Your task to perform on an android device: Open wifi settings Image 0: 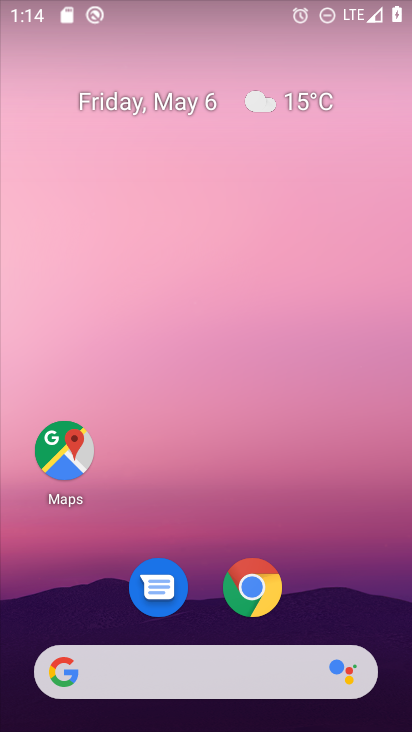
Step 0: drag from (354, 568) to (271, 50)
Your task to perform on an android device: Open wifi settings Image 1: 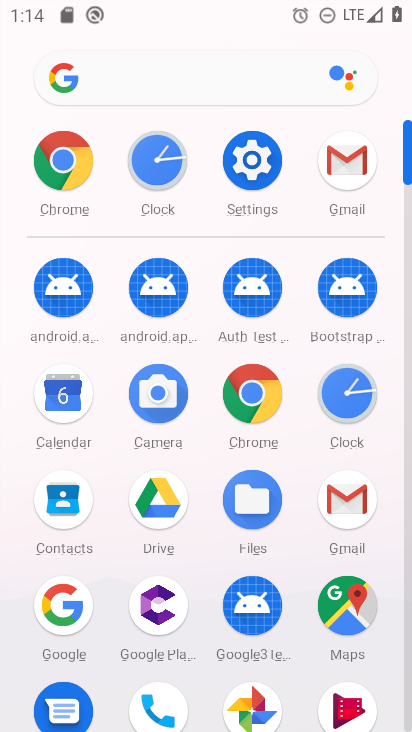
Step 1: click (252, 170)
Your task to perform on an android device: Open wifi settings Image 2: 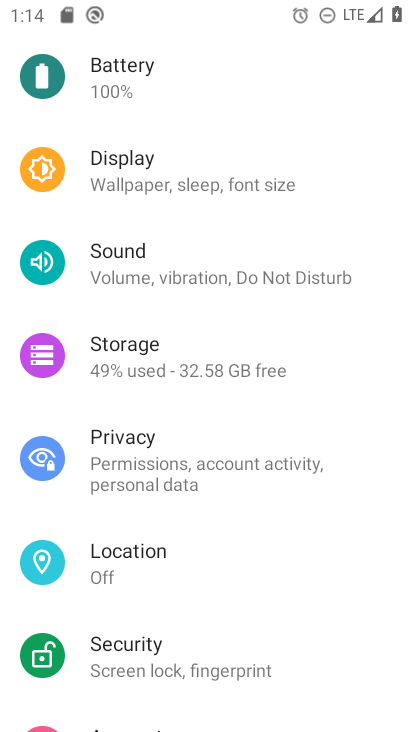
Step 2: drag from (222, 150) to (124, 709)
Your task to perform on an android device: Open wifi settings Image 3: 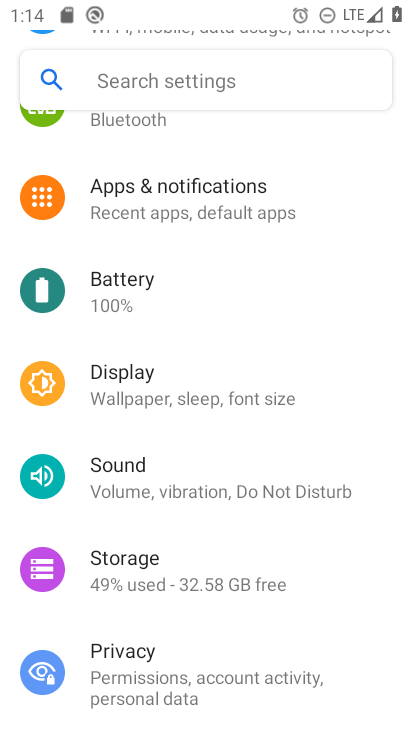
Step 3: drag from (233, 183) to (183, 631)
Your task to perform on an android device: Open wifi settings Image 4: 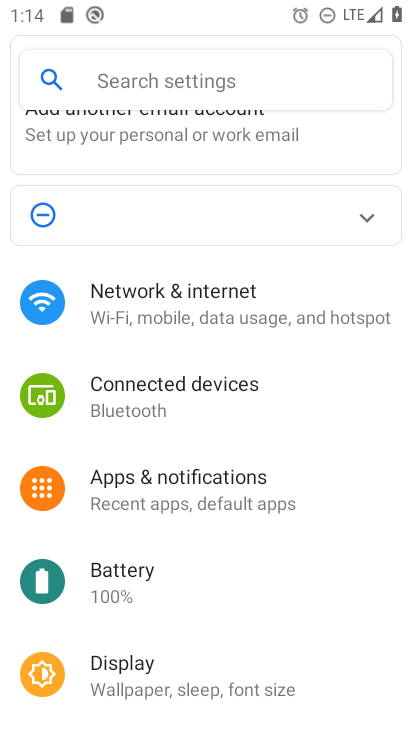
Step 4: click (196, 312)
Your task to perform on an android device: Open wifi settings Image 5: 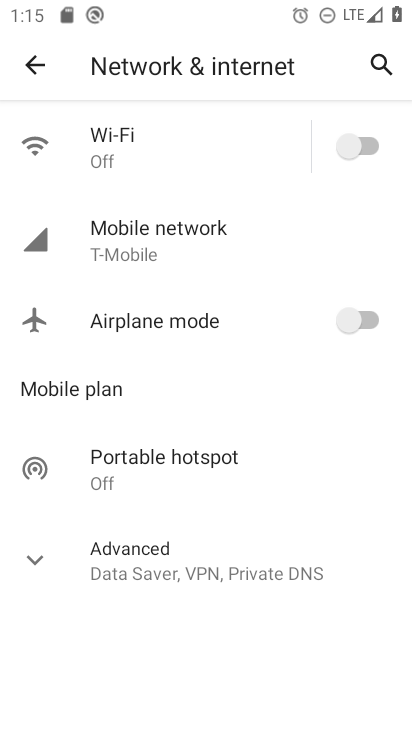
Step 5: task complete